Your task to perform on an android device: Open the stopwatch Image 0: 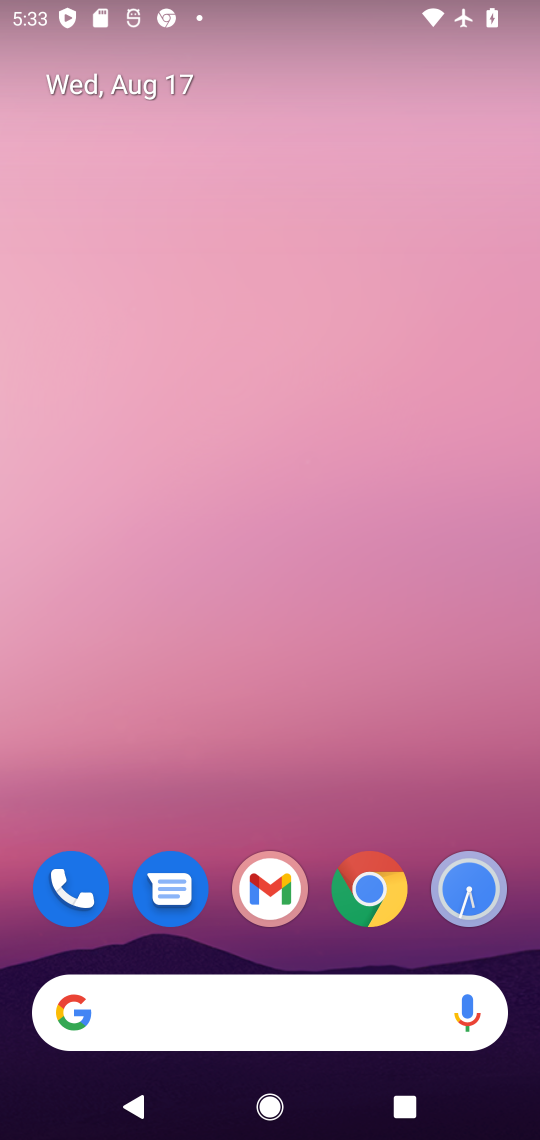
Step 0: click (470, 893)
Your task to perform on an android device: Open the stopwatch Image 1: 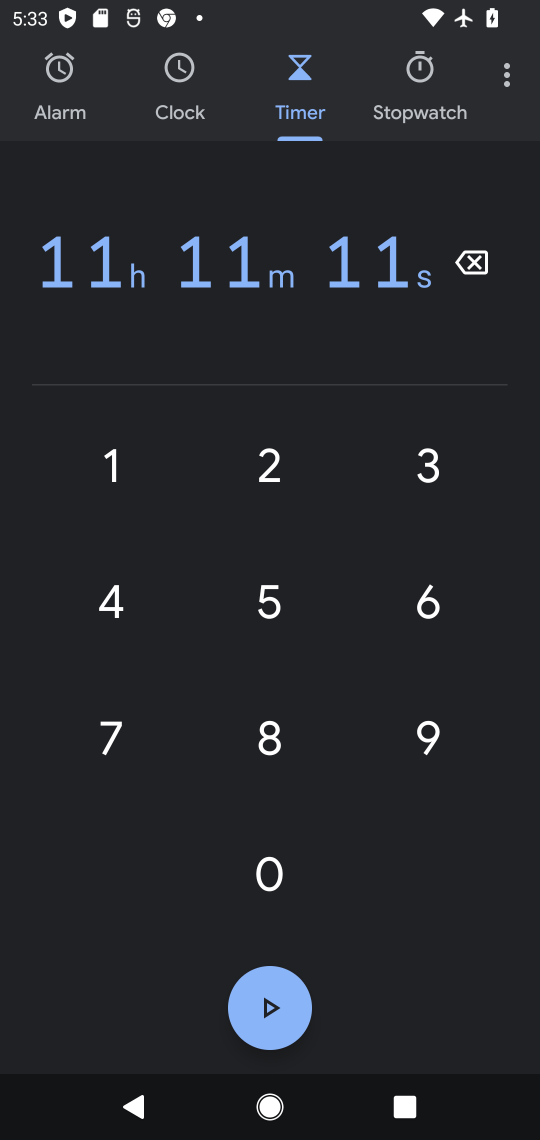
Step 1: click (423, 69)
Your task to perform on an android device: Open the stopwatch Image 2: 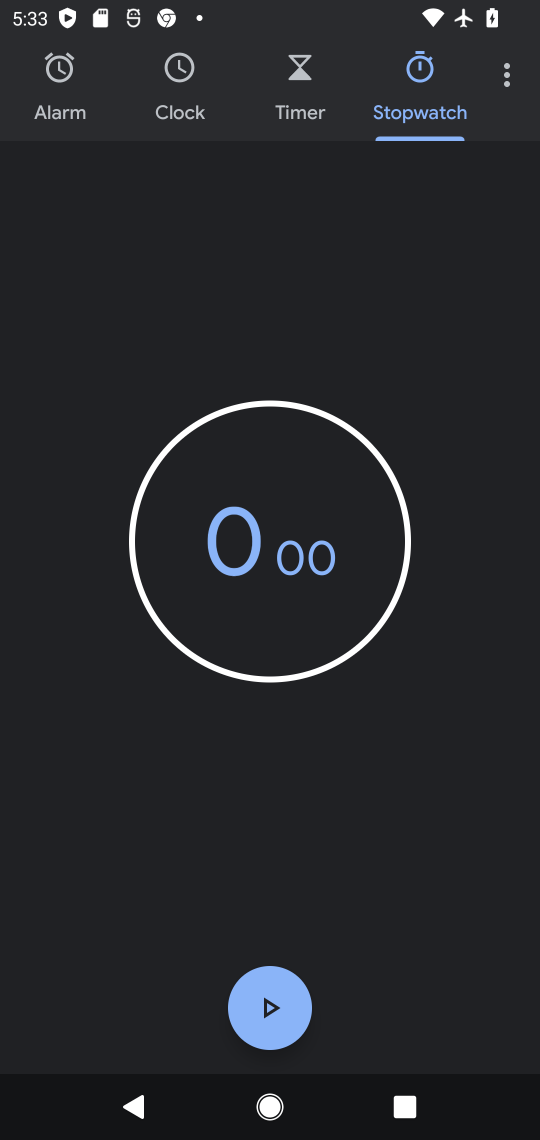
Step 2: task complete